Your task to perform on an android device: search for starred emails in the gmail app Image 0: 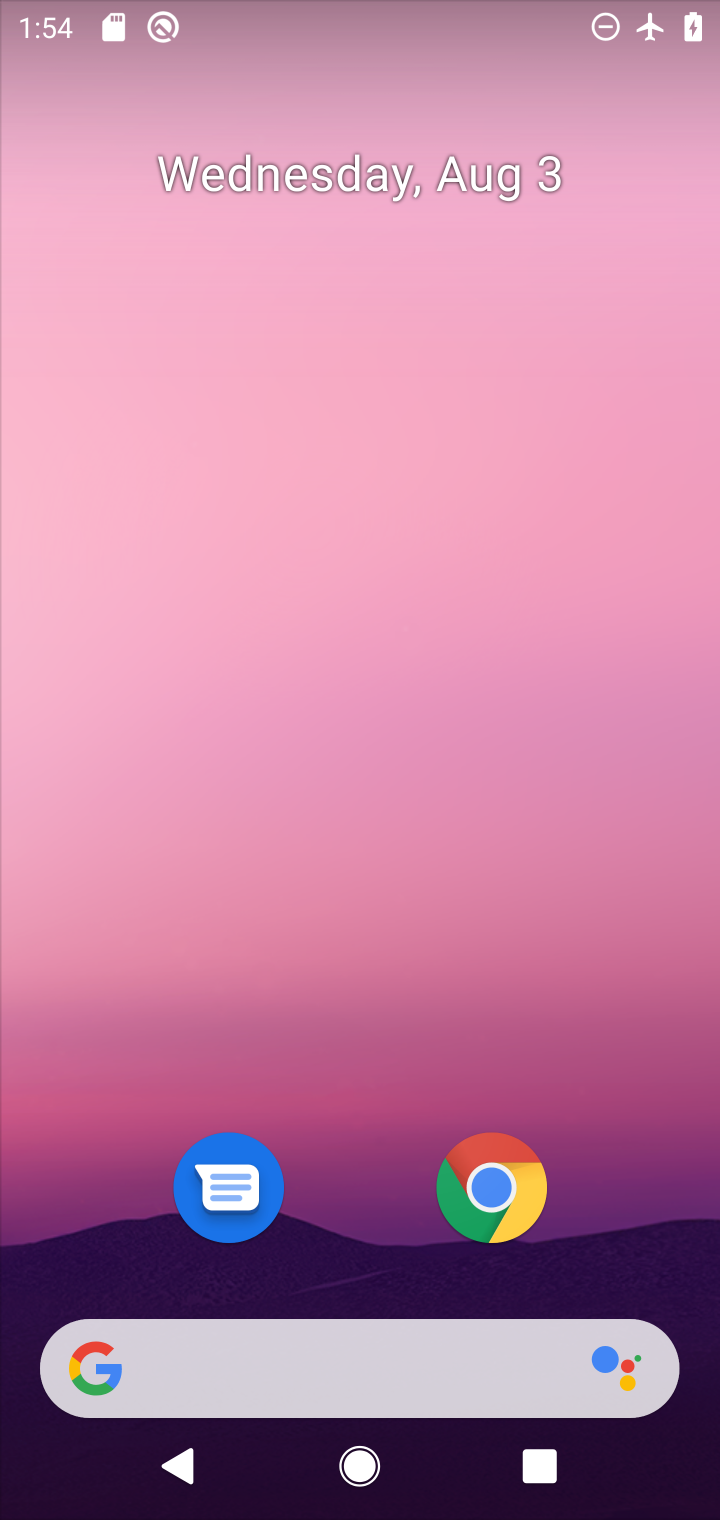
Step 0: drag from (371, 1106) to (385, 19)
Your task to perform on an android device: search for starred emails in the gmail app Image 1: 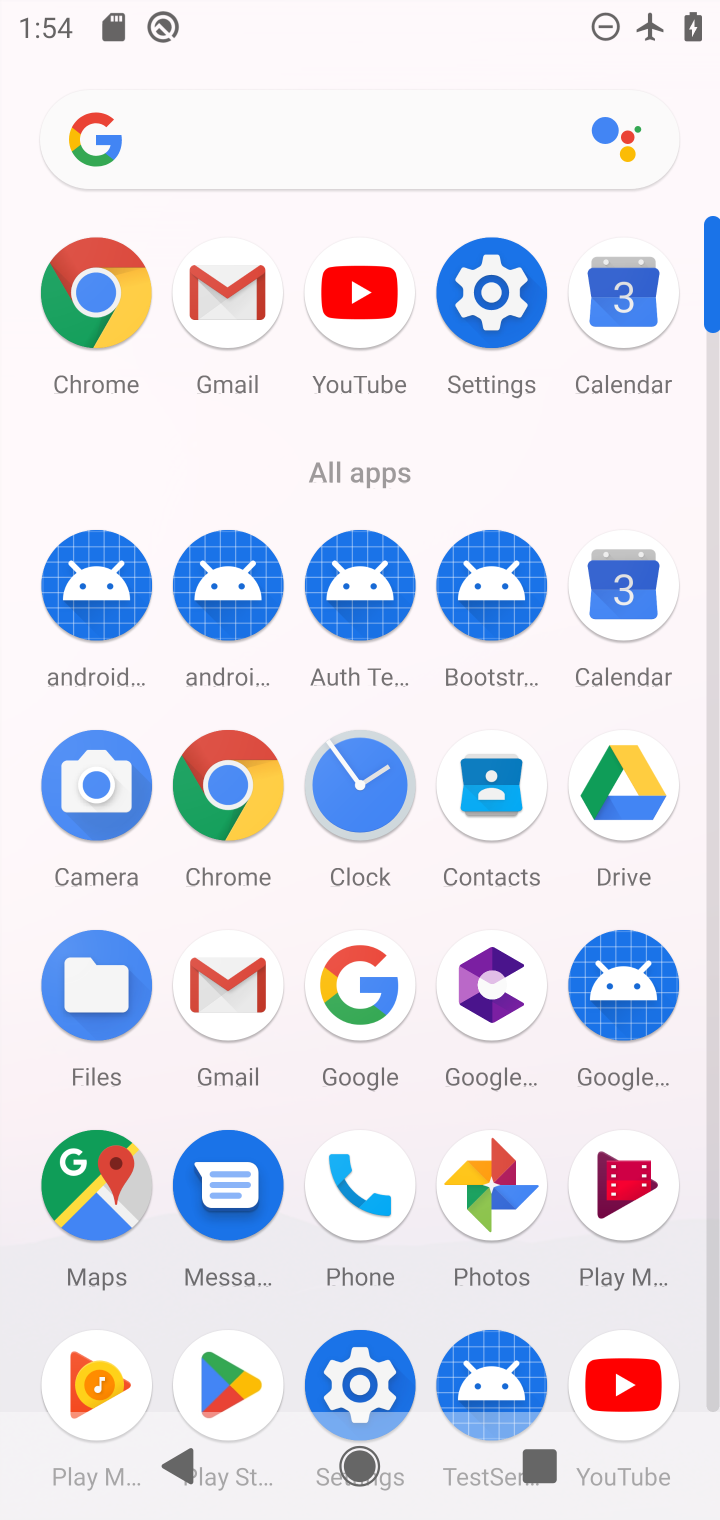
Step 1: click (222, 293)
Your task to perform on an android device: search for starred emails in the gmail app Image 2: 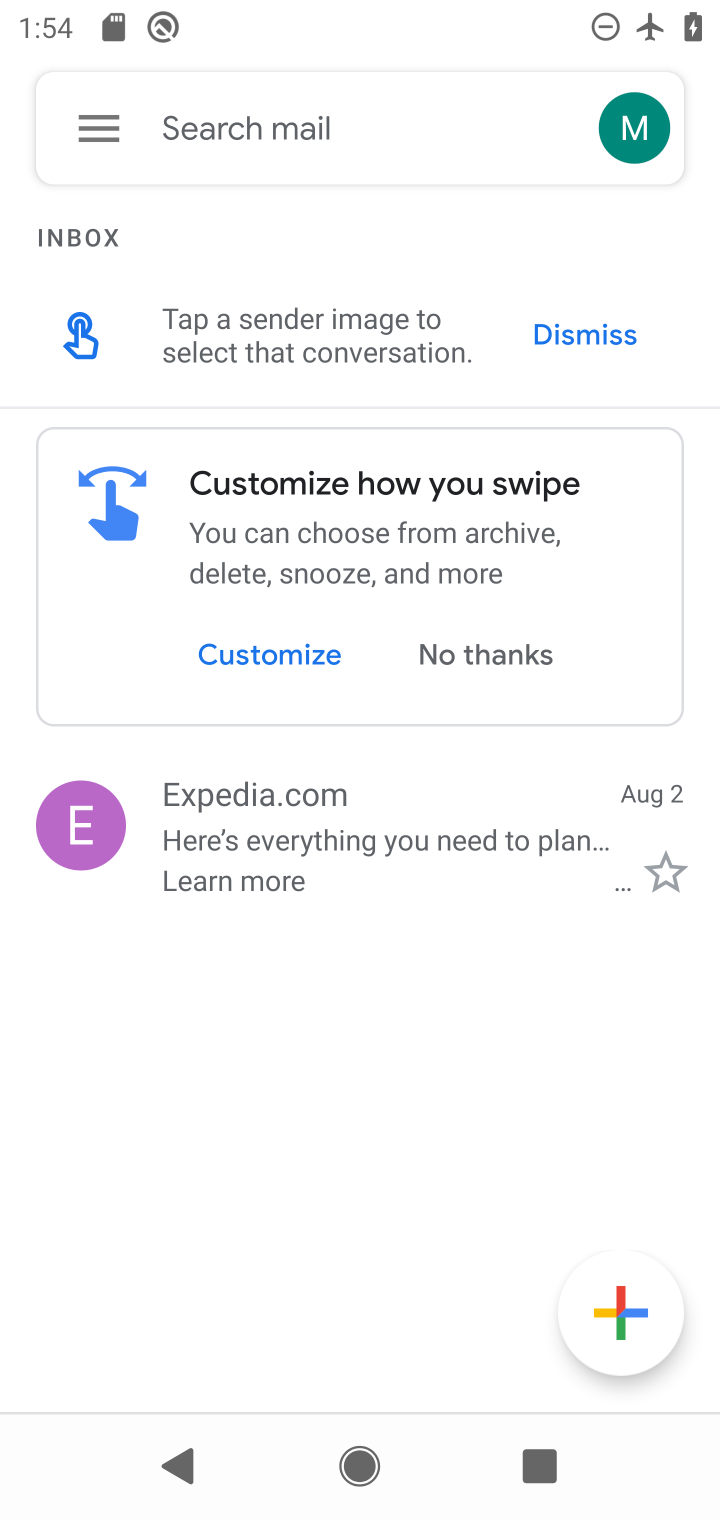
Step 2: click (97, 125)
Your task to perform on an android device: search for starred emails in the gmail app Image 3: 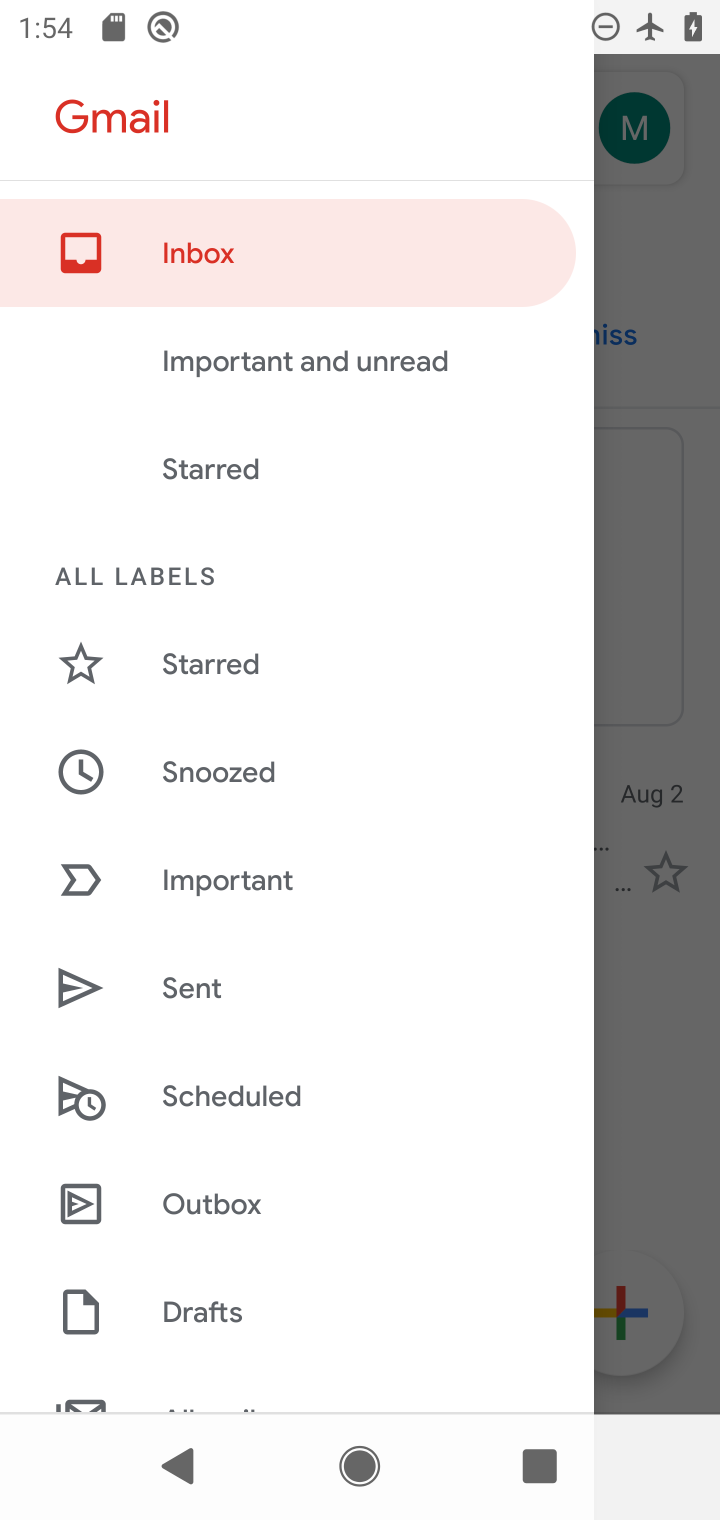
Step 3: click (179, 459)
Your task to perform on an android device: search for starred emails in the gmail app Image 4: 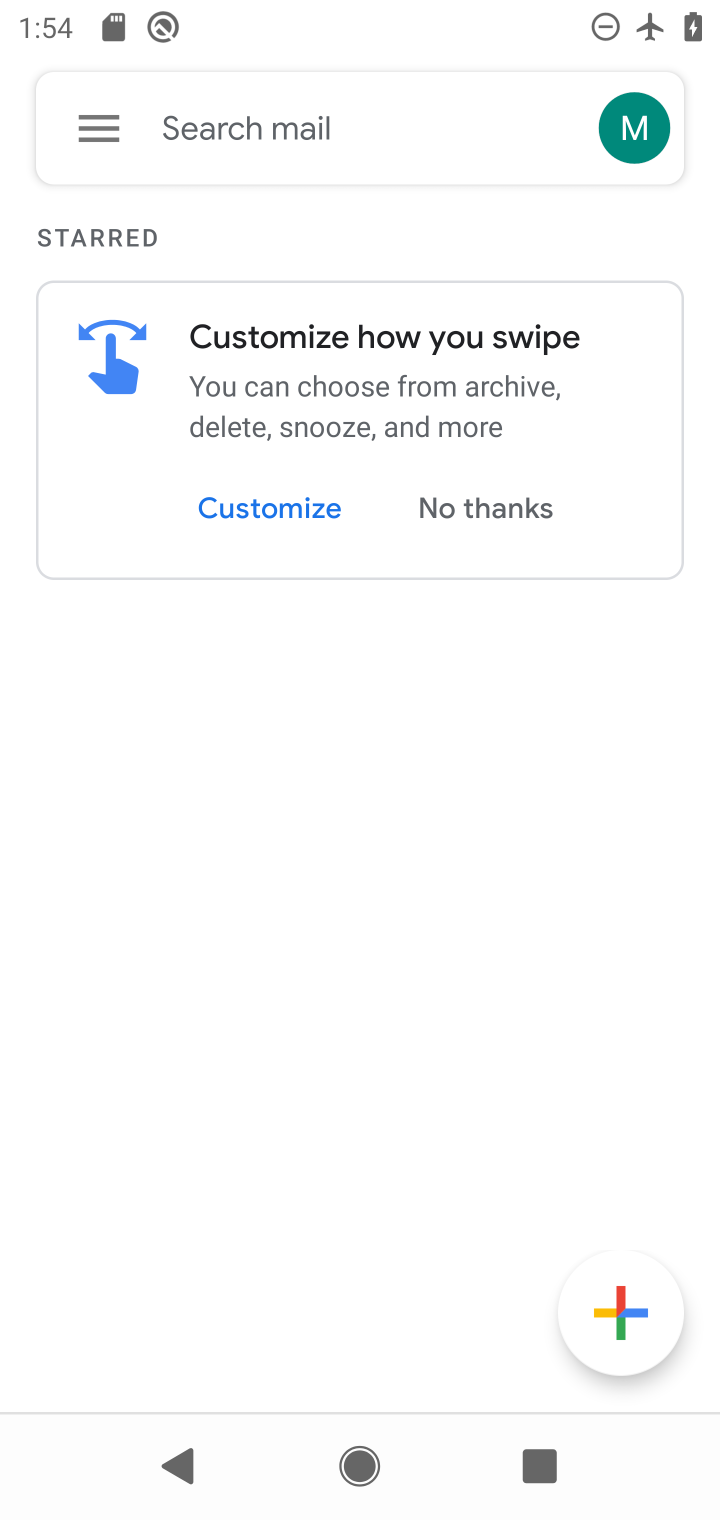
Step 4: task complete